Your task to perform on an android device: toggle show notifications on the lock screen Image 0: 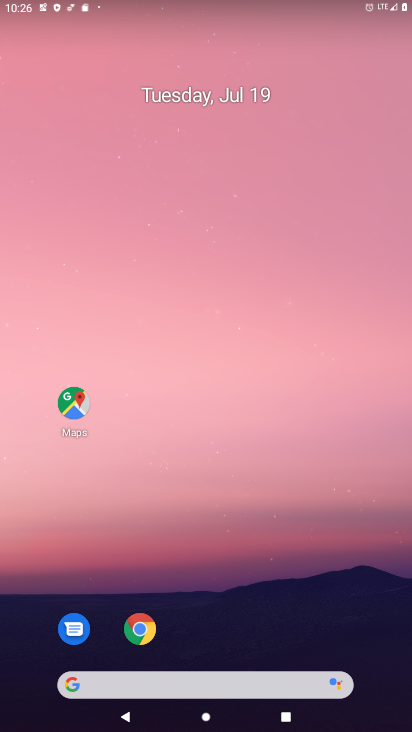
Step 0: drag from (238, 525) to (334, 7)
Your task to perform on an android device: toggle show notifications on the lock screen Image 1: 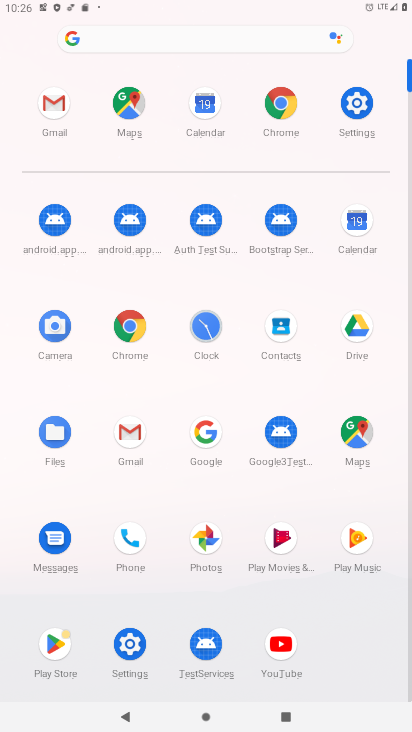
Step 1: click (132, 657)
Your task to perform on an android device: toggle show notifications on the lock screen Image 2: 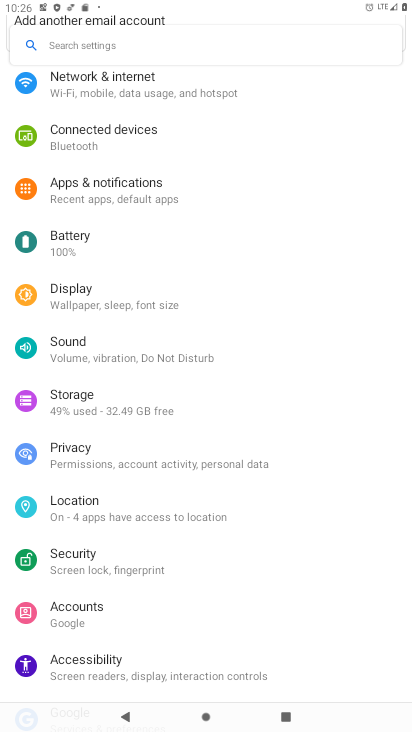
Step 2: click (159, 190)
Your task to perform on an android device: toggle show notifications on the lock screen Image 3: 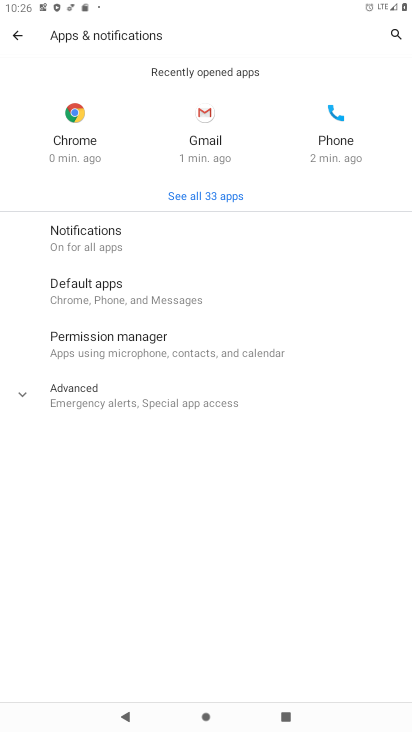
Step 3: click (92, 246)
Your task to perform on an android device: toggle show notifications on the lock screen Image 4: 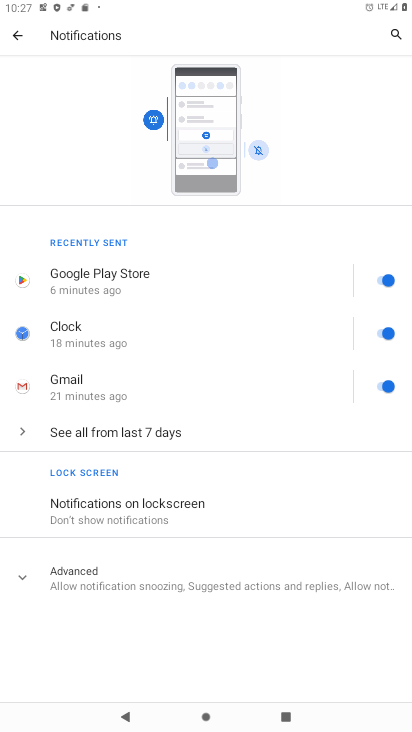
Step 4: click (138, 516)
Your task to perform on an android device: toggle show notifications on the lock screen Image 5: 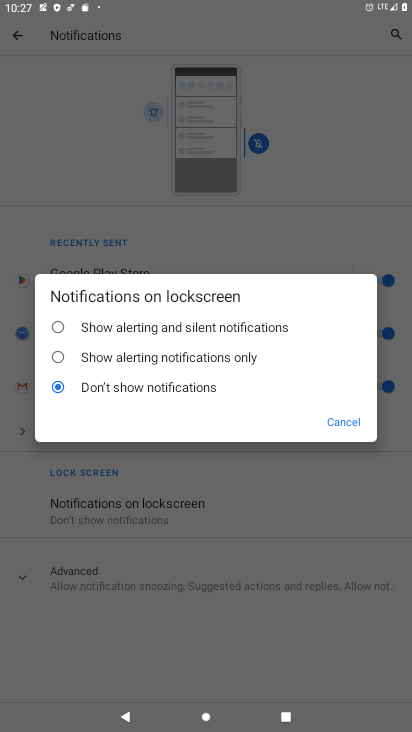
Step 5: click (152, 329)
Your task to perform on an android device: toggle show notifications on the lock screen Image 6: 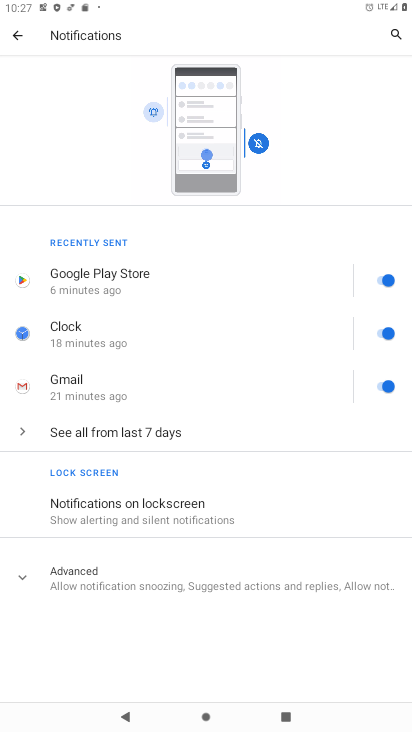
Step 6: task complete